Your task to perform on an android device: Open Google Image 0: 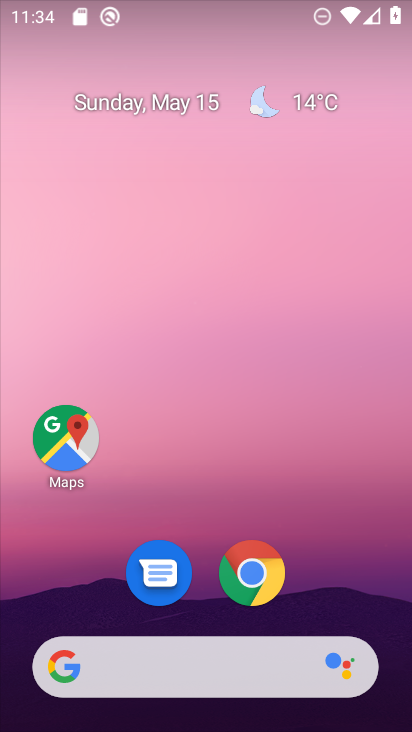
Step 0: click (65, 658)
Your task to perform on an android device: Open Google Image 1: 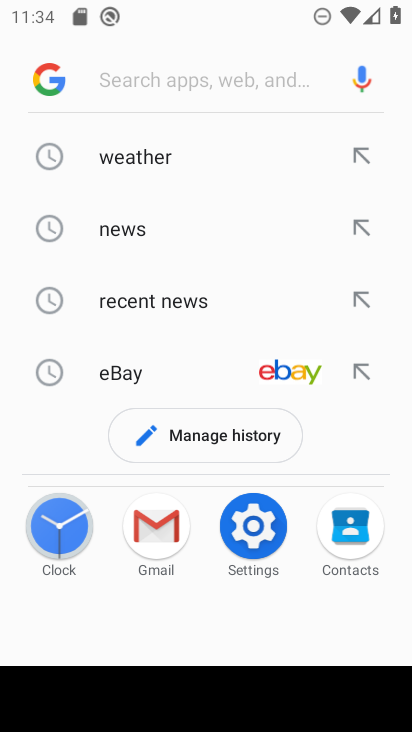
Step 1: click (51, 80)
Your task to perform on an android device: Open Google Image 2: 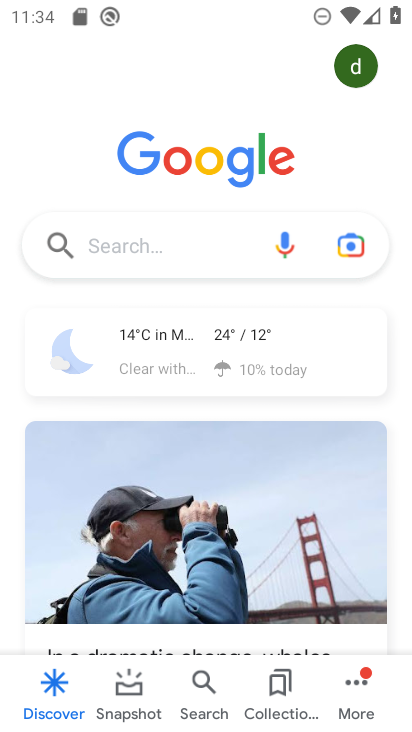
Step 2: task complete